Your task to perform on an android device: open app "Google Play Games" Image 0: 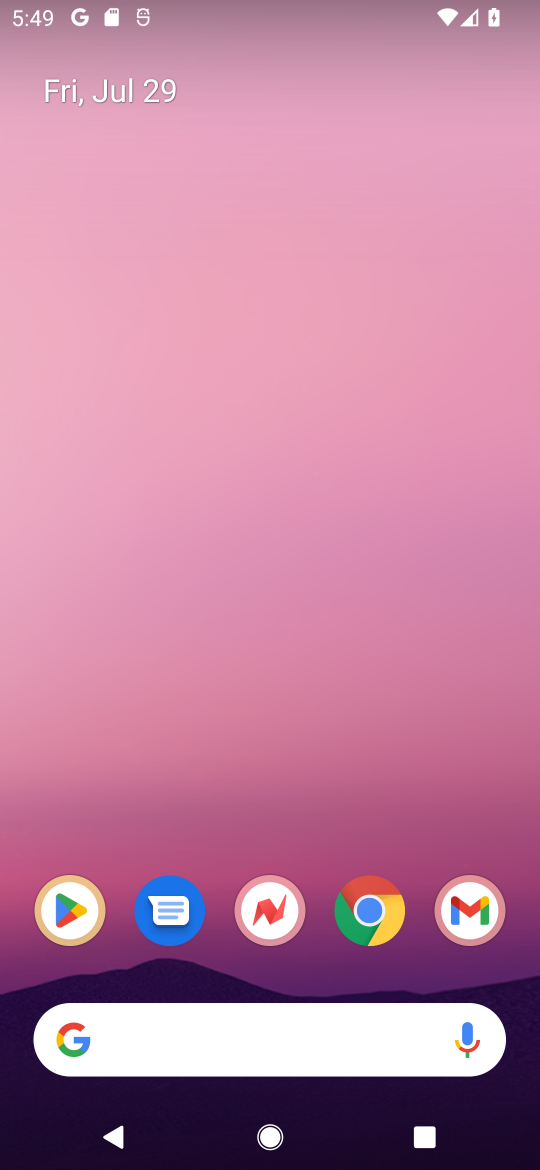
Step 0: click (76, 919)
Your task to perform on an android device: open app "Google Play Games" Image 1: 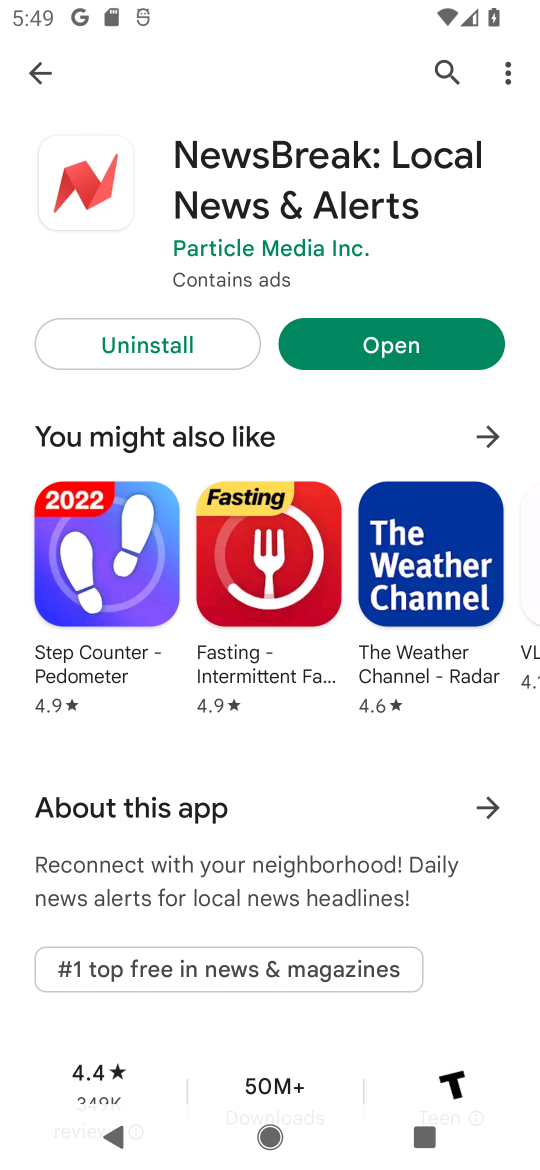
Step 1: click (432, 71)
Your task to perform on an android device: open app "Google Play Games" Image 2: 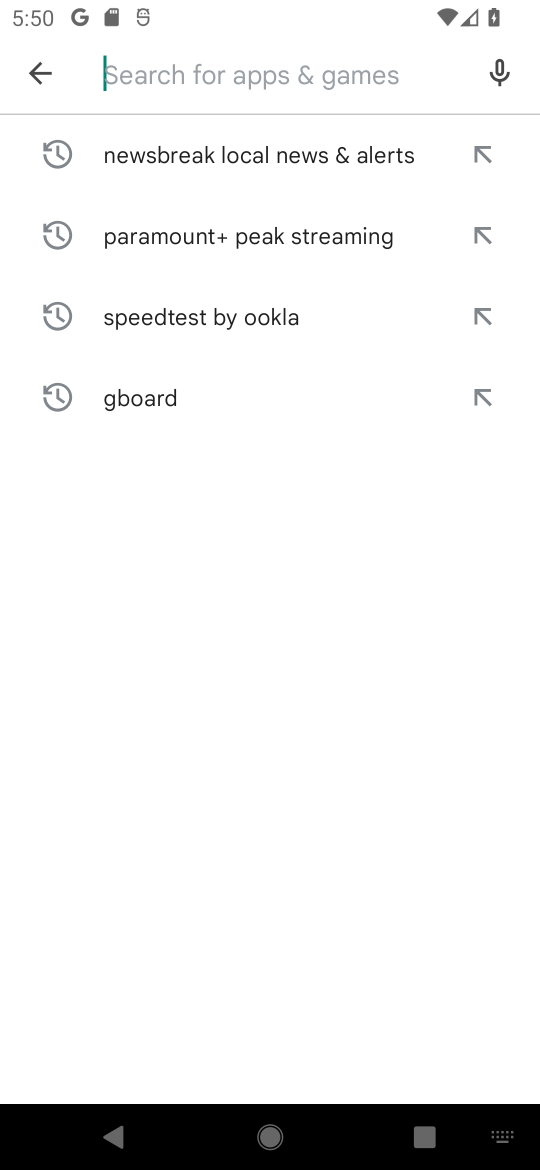
Step 2: type "google play games"
Your task to perform on an android device: open app "Google Play Games" Image 3: 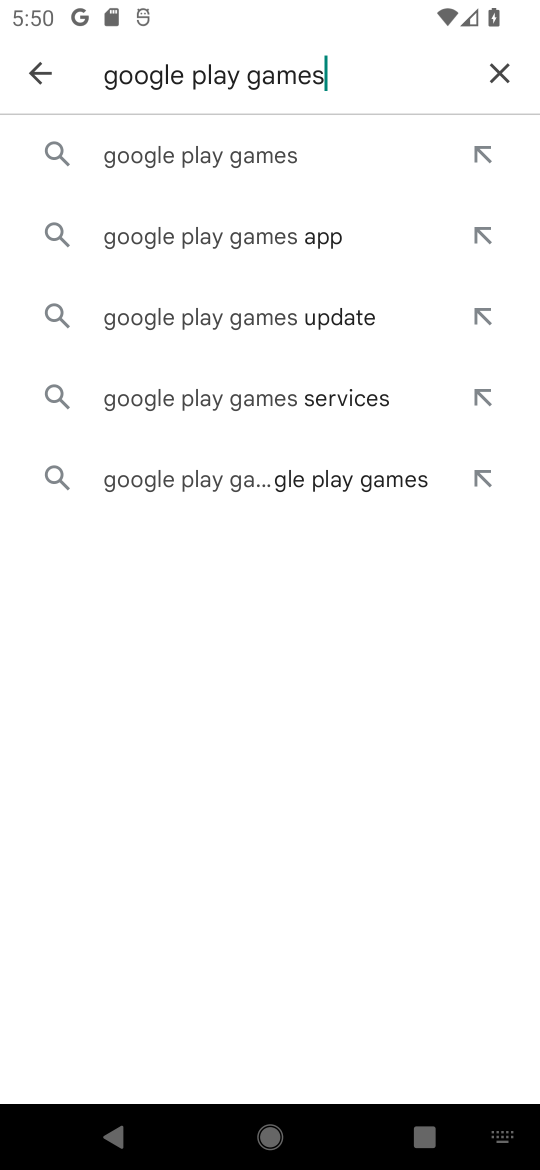
Step 3: click (109, 143)
Your task to perform on an android device: open app "Google Play Games" Image 4: 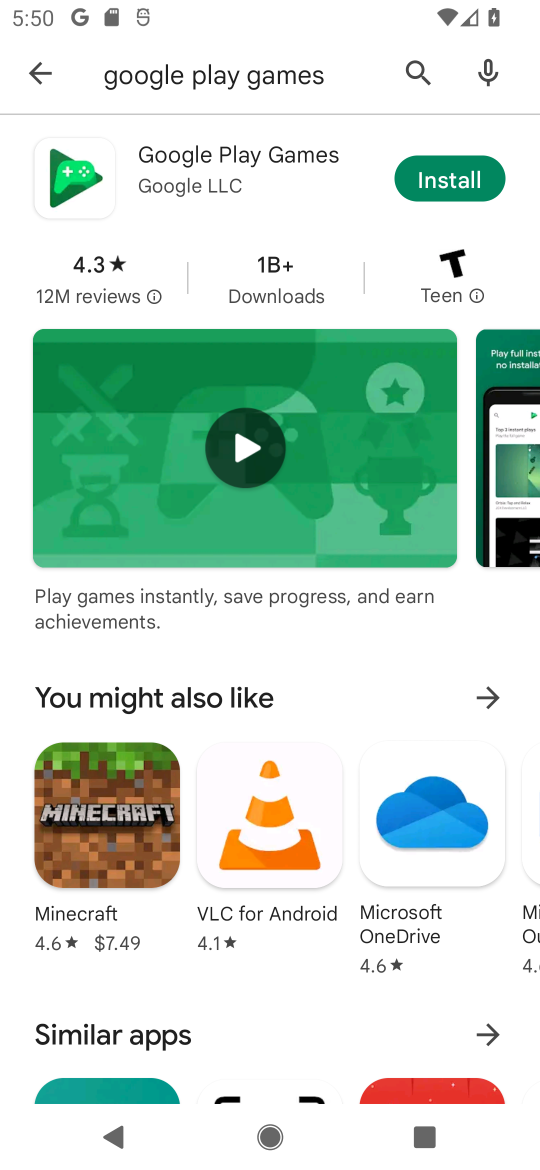
Step 4: click (199, 142)
Your task to perform on an android device: open app "Google Play Games" Image 5: 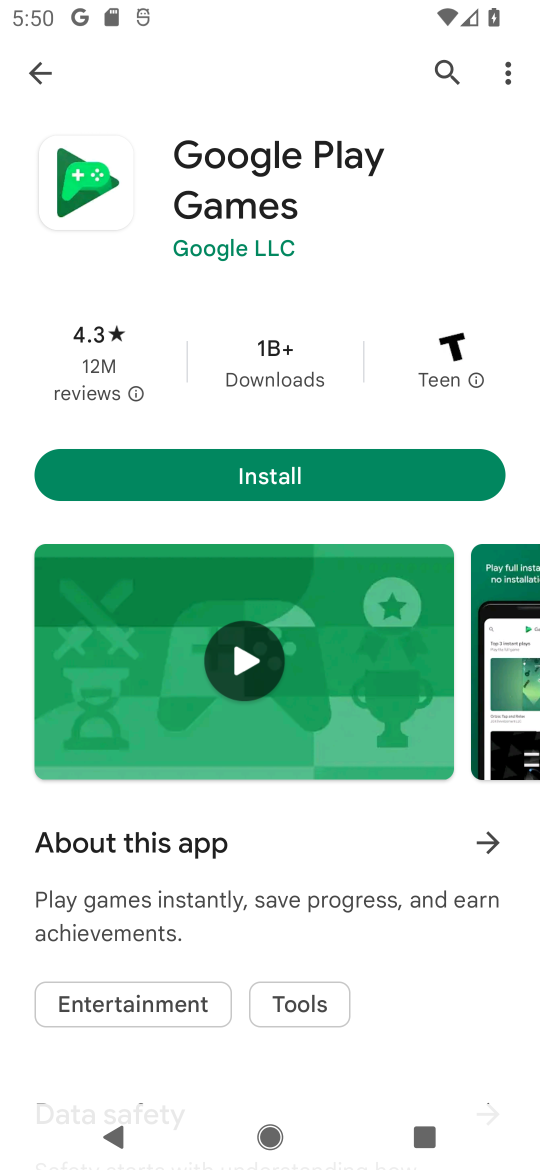
Step 5: task complete